Your task to perform on an android device: turn on data saver in the chrome app Image 0: 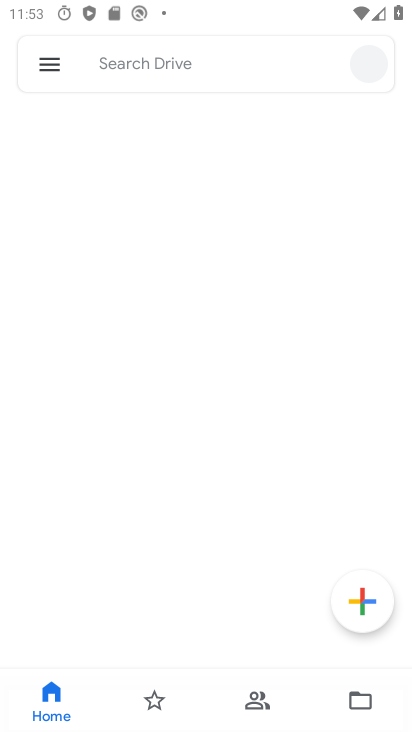
Step 0: drag from (207, 682) to (141, 230)
Your task to perform on an android device: turn on data saver in the chrome app Image 1: 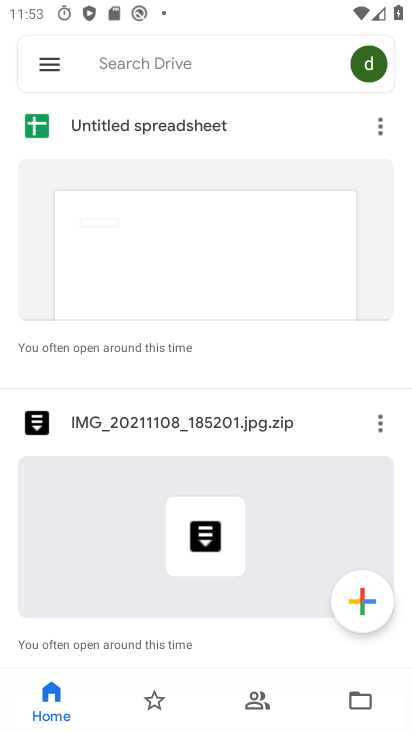
Step 1: press back button
Your task to perform on an android device: turn on data saver in the chrome app Image 2: 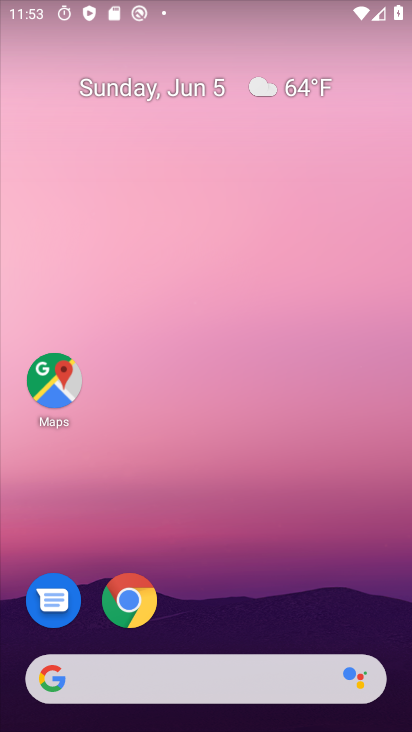
Step 2: drag from (269, 702) to (182, 195)
Your task to perform on an android device: turn on data saver in the chrome app Image 3: 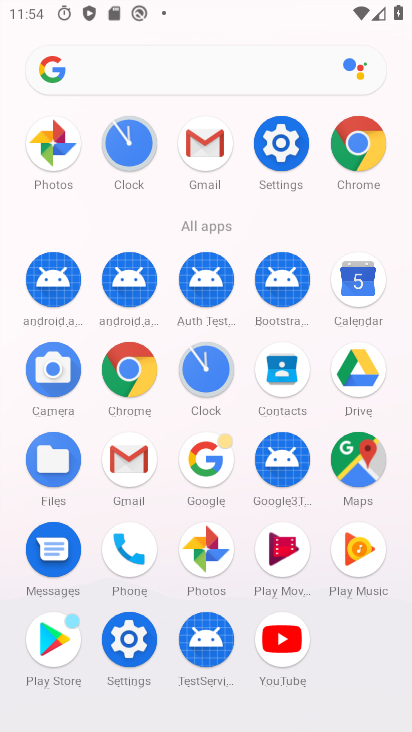
Step 3: click (366, 159)
Your task to perform on an android device: turn on data saver in the chrome app Image 4: 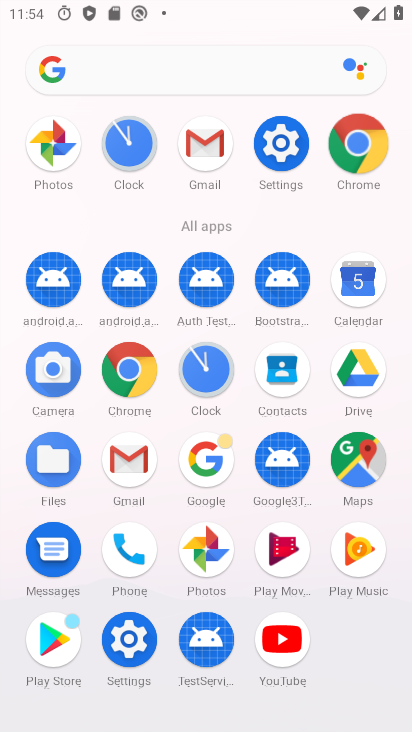
Step 4: click (366, 159)
Your task to perform on an android device: turn on data saver in the chrome app Image 5: 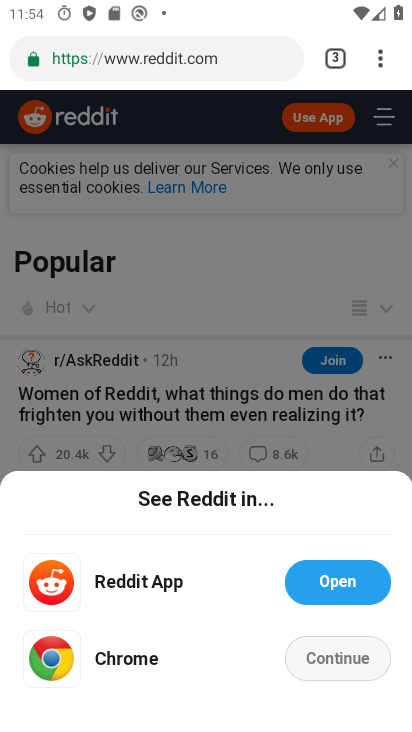
Step 5: drag from (377, 52) to (168, 631)
Your task to perform on an android device: turn on data saver in the chrome app Image 6: 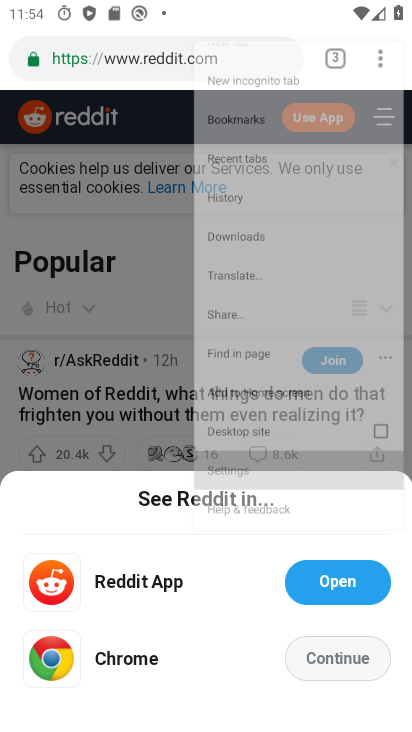
Step 6: click (169, 631)
Your task to perform on an android device: turn on data saver in the chrome app Image 7: 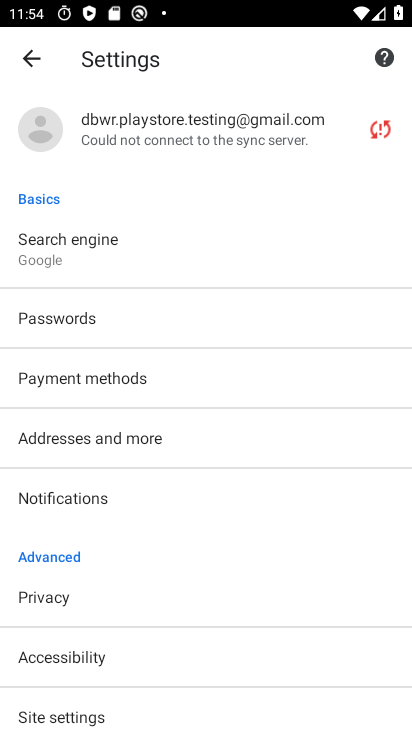
Step 7: drag from (125, 636) to (107, 205)
Your task to perform on an android device: turn on data saver in the chrome app Image 8: 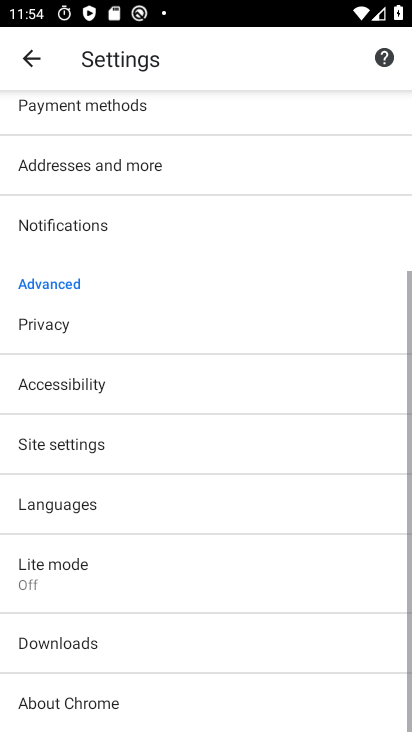
Step 8: drag from (149, 508) to (165, 149)
Your task to perform on an android device: turn on data saver in the chrome app Image 9: 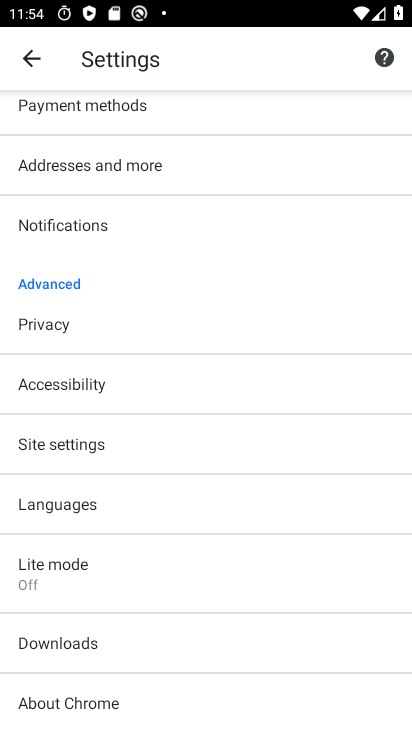
Step 9: click (62, 561)
Your task to perform on an android device: turn on data saver in the chrome app Image 10: 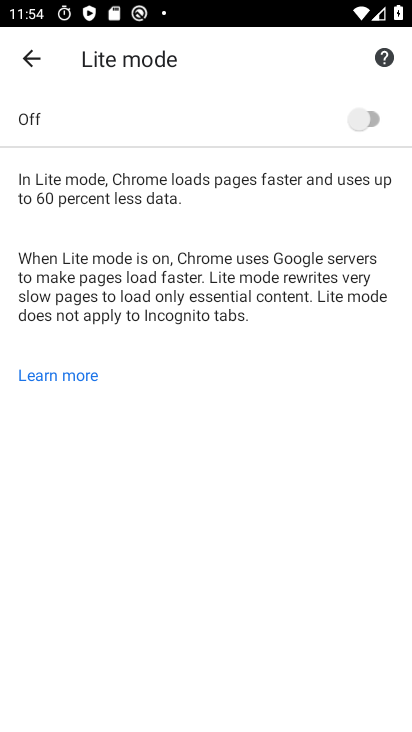
Step 10: click (353, 119)
Your task to perform on an android device: turn on data saver in the chrome app Image 11: 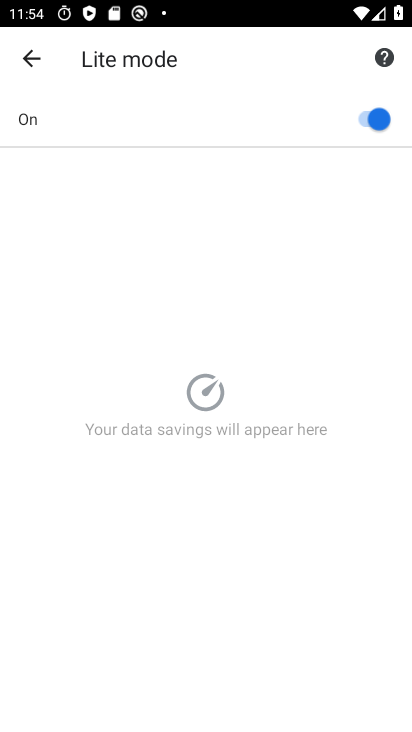
Step 11: task complete